Your task to perform on an android device: find snoozed emails in the gmail app Image 0: 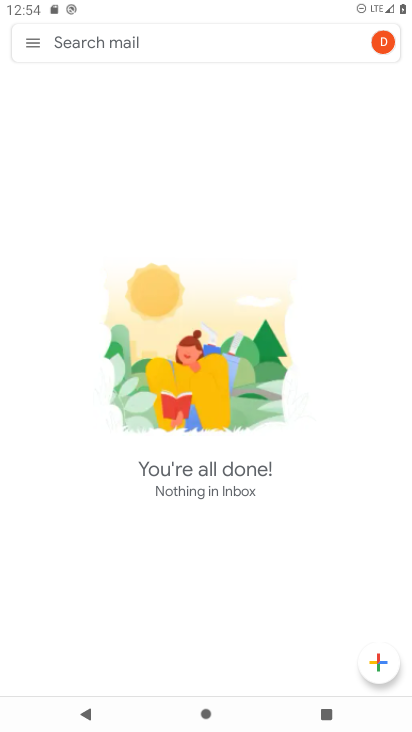
Step 0: press home button
Your task to perform on an android device: find snoozed emails in the gmail app Image 1: 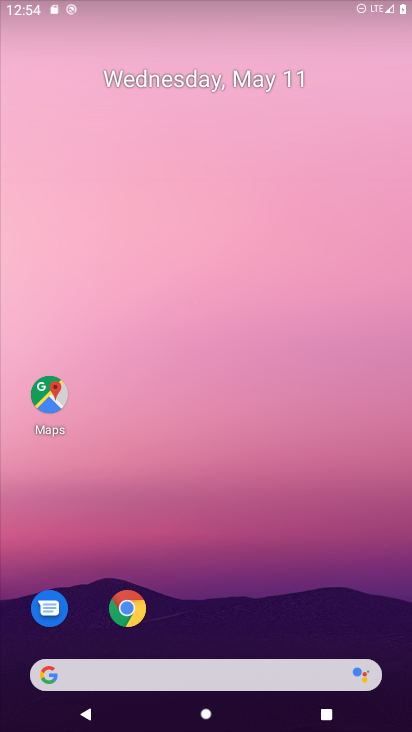
Step 1: drag from (240, 498) to (187, 161)
Your task to perform on an android device: find snoozed emails in the gmail app Image 2: 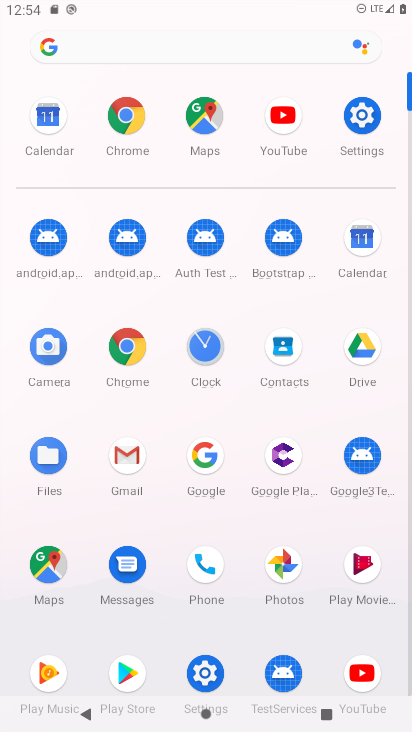
Step 2: click (127, 451)
Your task to perform on an android device: find snoozed emails in the gmail app Image 3: 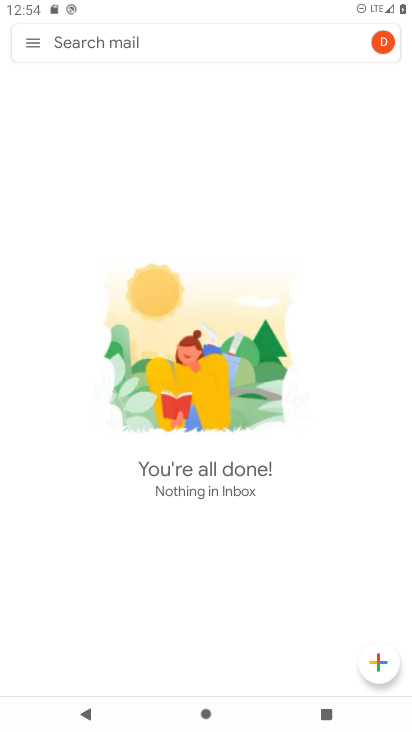
Step 3: click (32, 39)
Your task to perform on an android device: find snoozed emails in the gmail app Image 4: 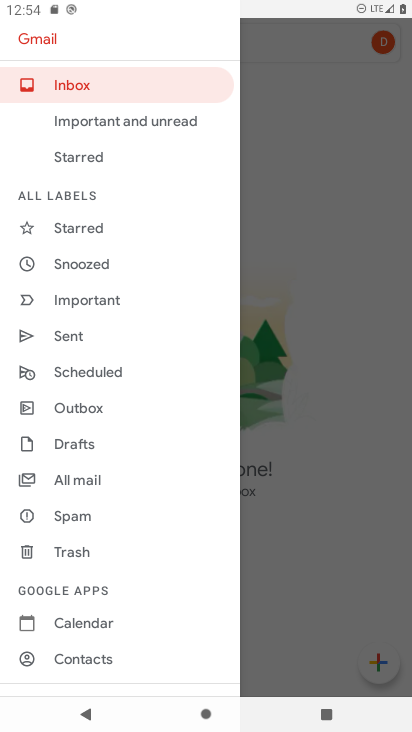
Step 4: click (93, 255)
Your task to perform on an android device: find snoozed emails in the gmail app Image 5: 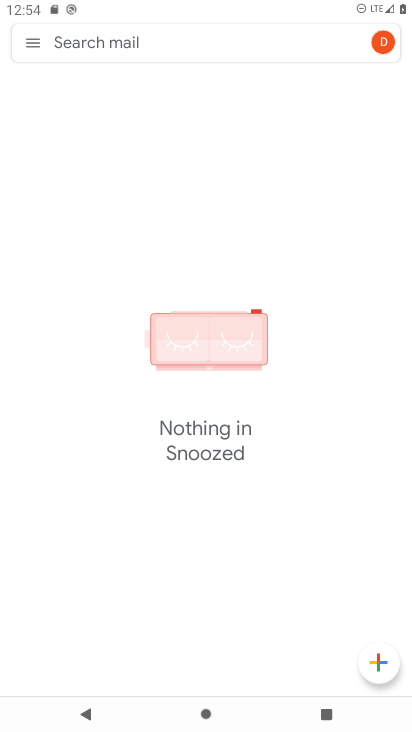
Step 5: task complete